Your task to perform on an android device: turn on sleep mode Image 0: 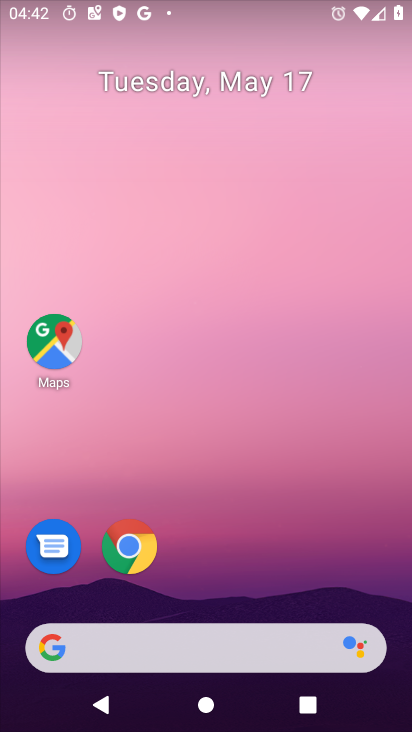
Step 0: drag from (377, 579) to (361, 298)
Your task to perform on an android device: turn on sleep mode Image 1: 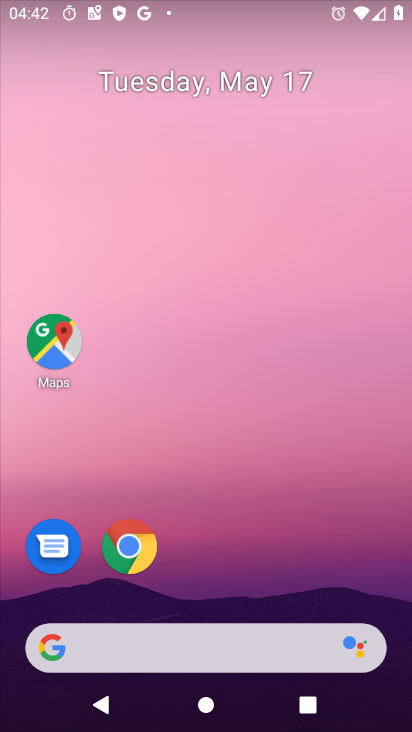
Step 1: drag from (391, 660) to (380, 246)
Your task to perform on an android device: turn on sleep mode Image 2: 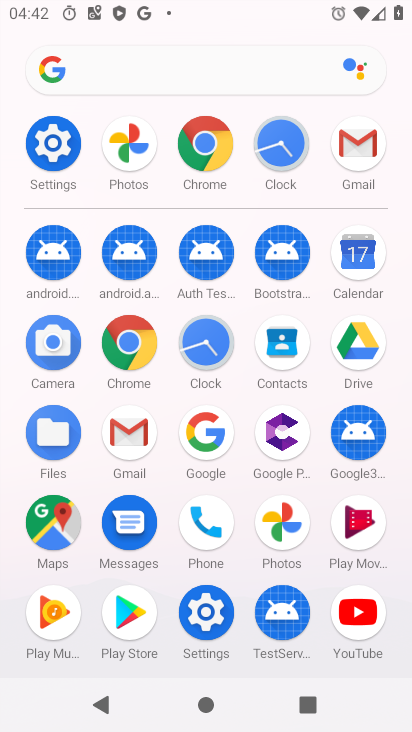
Step 2: click (193, 621)
Your task to perform on an android device: turn on sleep mode Image 3: 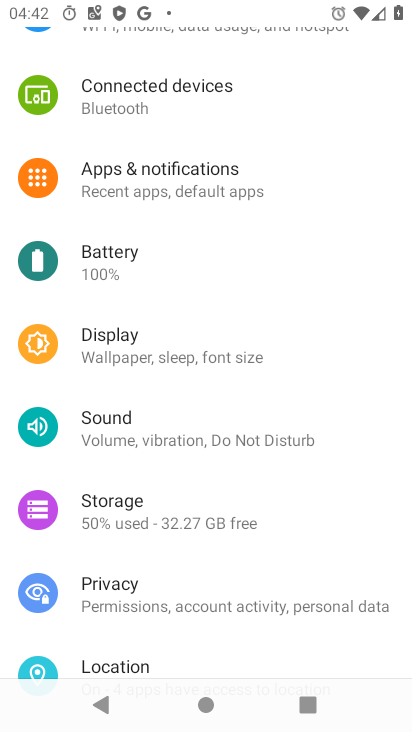
Step 3: click (121, 352)
Your task to perform on an android device: turn on sleep mode Image 4: 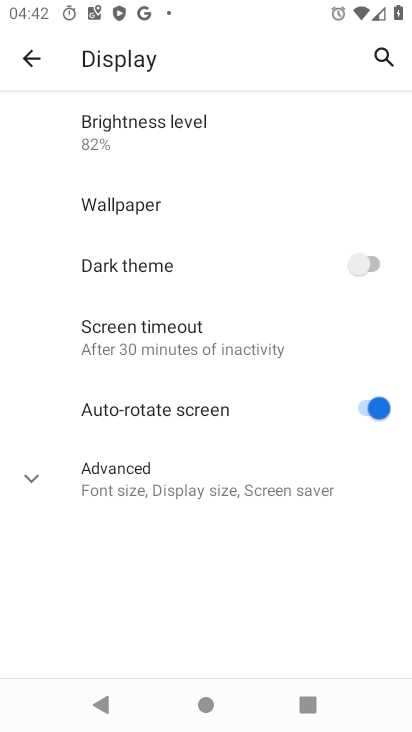
Step 4: click (145, 344)
Your task to perform on an android device: turn on sleep mode Image 5: 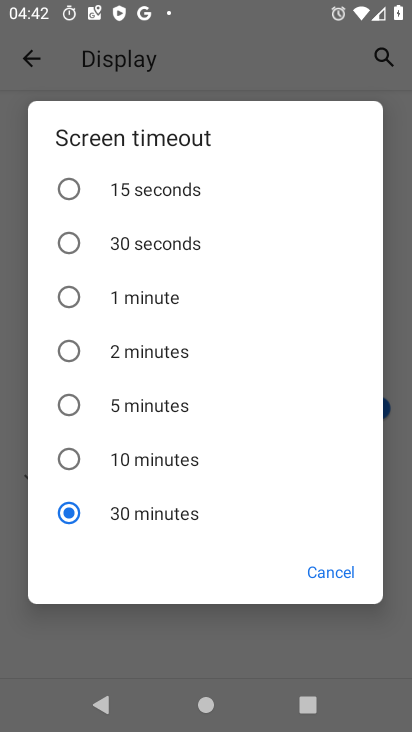
Step 5: task complete